Your task to perform on an android device: Show me productivity apps on the Play Store Image 0: 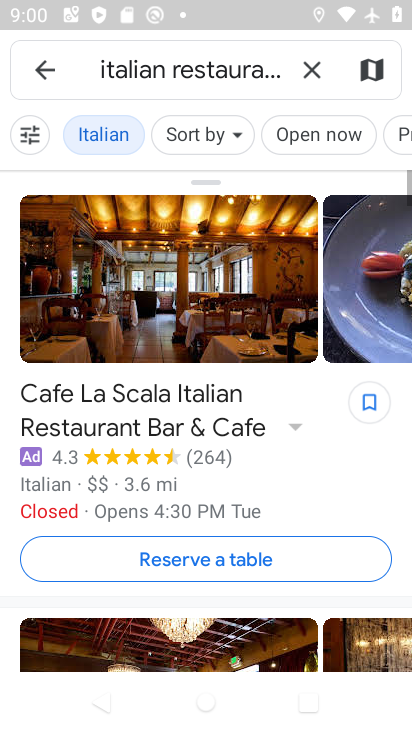
Step 0: press home button
Your task to perform on an android device: Show me productivity apps on the Play Store Image 1: 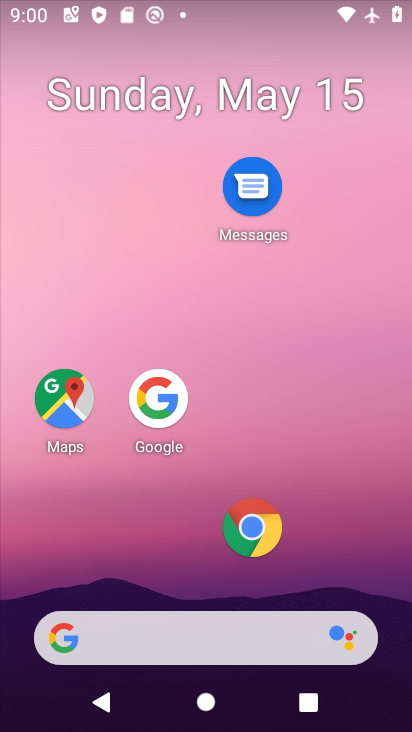
Step 1: drag from (293, 246) to (317, 180)
Your task to perform on an android device: Show me productivity apps on the Play Store Image 2: 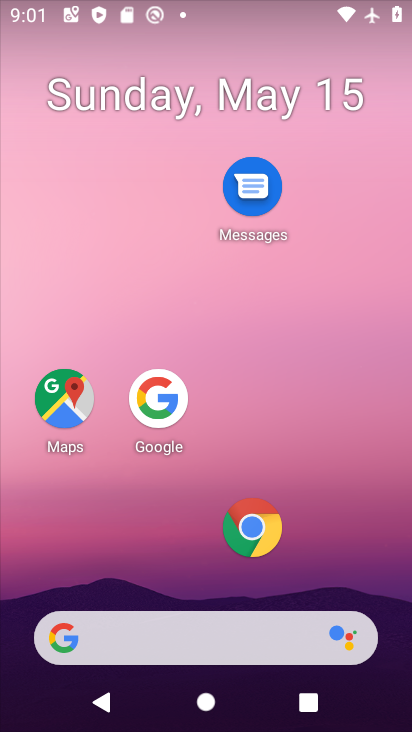
Step 2: drag from (180, 636) to (295, 204)
Your task to perform on an android device: Show me productivity apps on the Play Store Image 3: 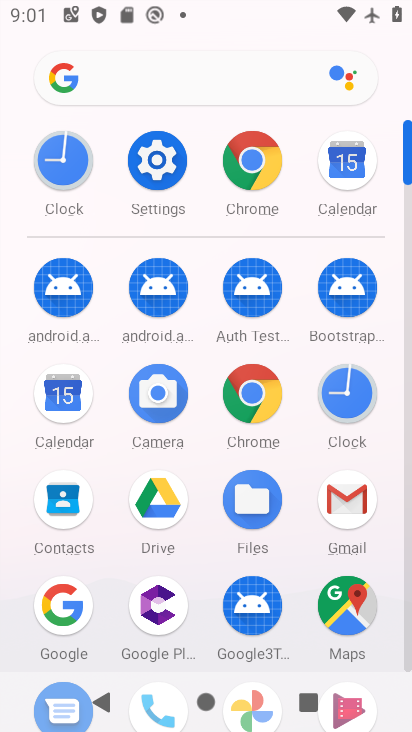
Step 3: drag from (158, 661) to (384, 159)
Your task to perform on an android device: Show me productivity apps on the Play Store Image 4: 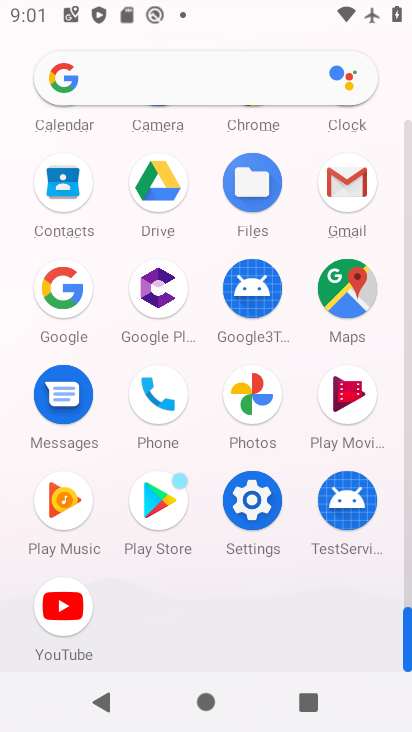
Step 4: click (159, 505)
Your task to perform on an android device: Show me productivity apps on the Play Store Image 5: 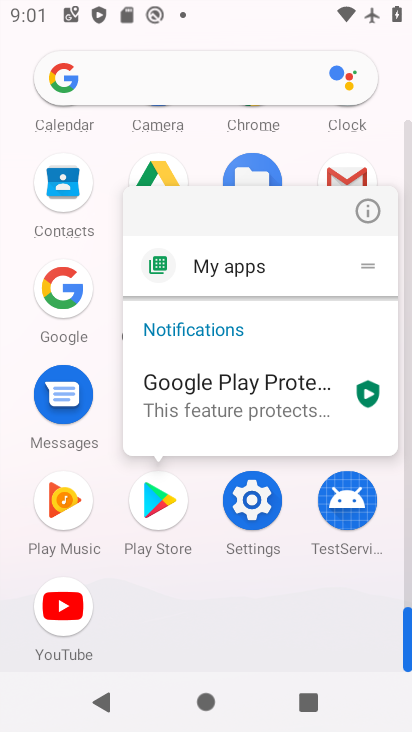
Step 5: click (159, 504)
Your task to perform on an android device: Show me productivity apps on the Play Store Image 6: 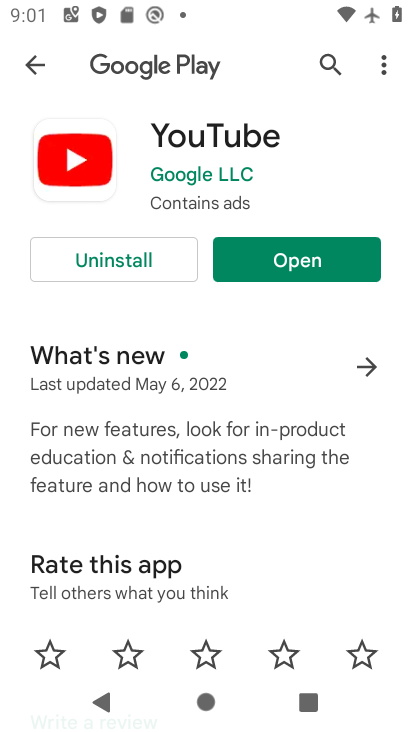
Step 6: click (26, 65)
Your task to perform on an android device: Show me productivity apps on the Play Store Image 7: 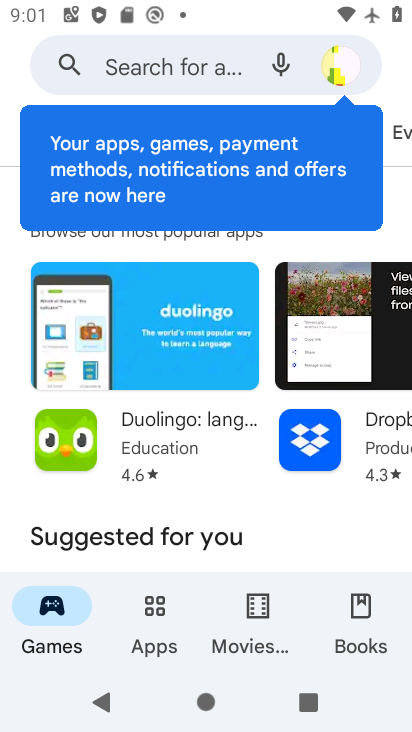
Step 7: click (163, 613)
Your task to perform on an android device: Show me productivity apps on the Play Store Image 8: 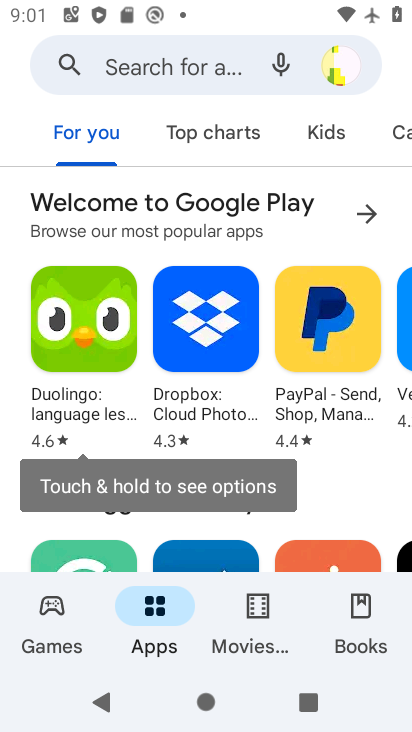
Step 8: drag from (374, 128) to (62, 154)
Your task to perform on an android device: Show me productivity apps on the Play Store Image 9: 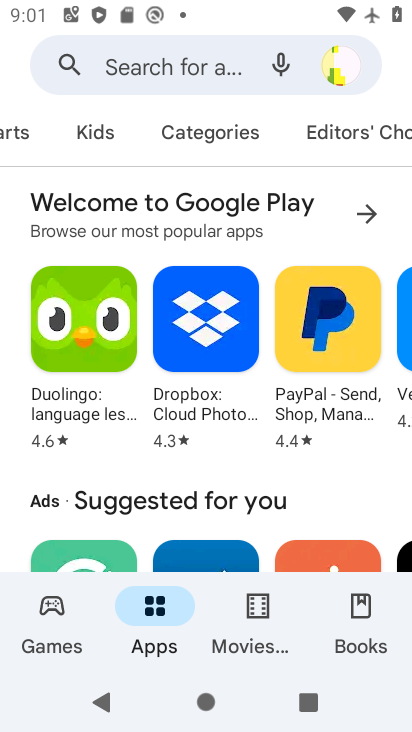
Step 9: click (195, 136)
Your task to perform on an android device: Show me productivity apps on the Play Store Image 10: 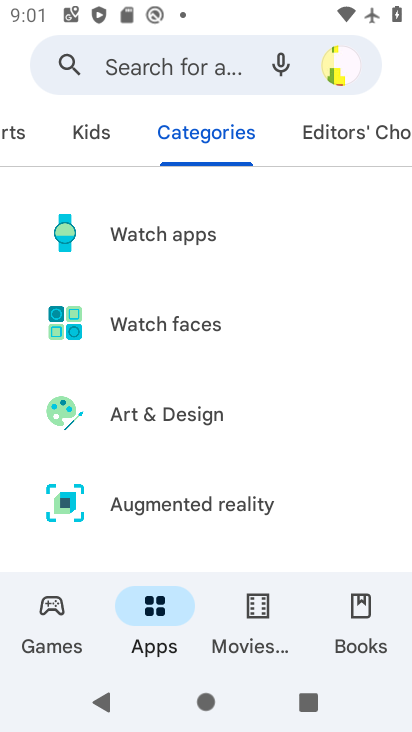
Step 10: drag from (297, 531) to (387, 156)
Your task to perform on an android device: Show me productivity apps on the Play Store Image 11: 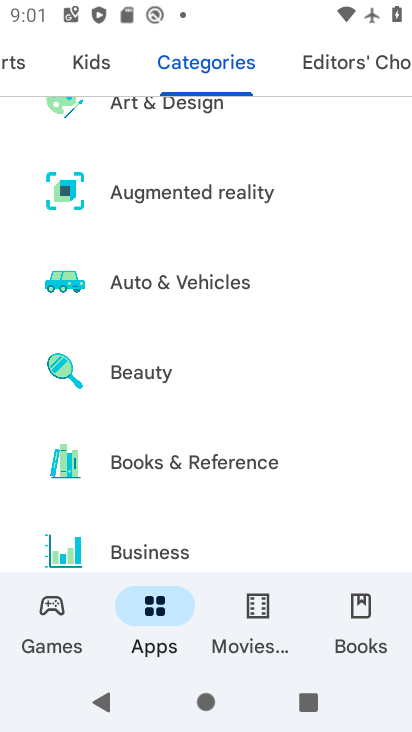
Step 11: drag from (253, 527) to (374, 75)
Your task to perform on an android device: Show me productivity apps on the Play Store Image 12: 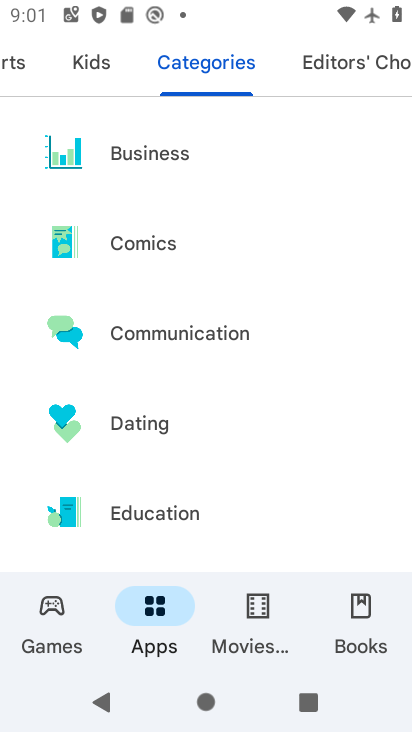
Step 12: drag from (294, 445) to (345, 159)
Your task to perform on an android device: Show me productivity apps on the Play Store Image 13: 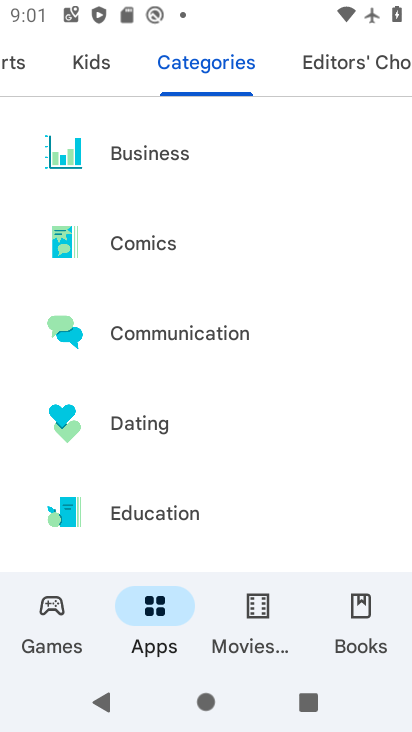
Step 13: drag from (224, 525) to (346, 7)
Your task to perform on an android device: Show me productivity apps on the Play Store Image 14: 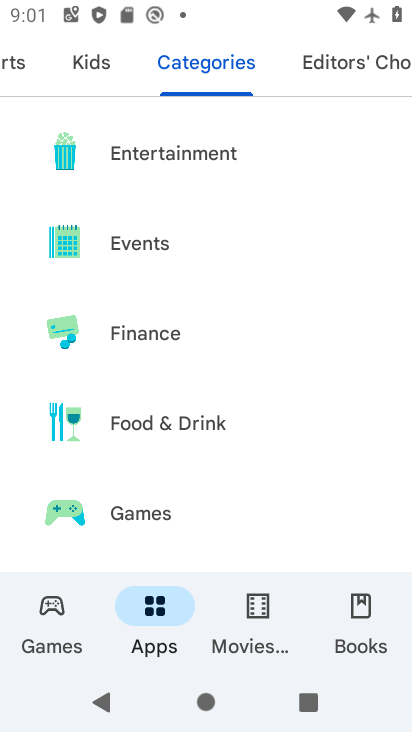
Step 14: drag from (202, 496) to (370, 0)
Your task to perform on an android device: Show me productivity apps on the Play Store Image 15: 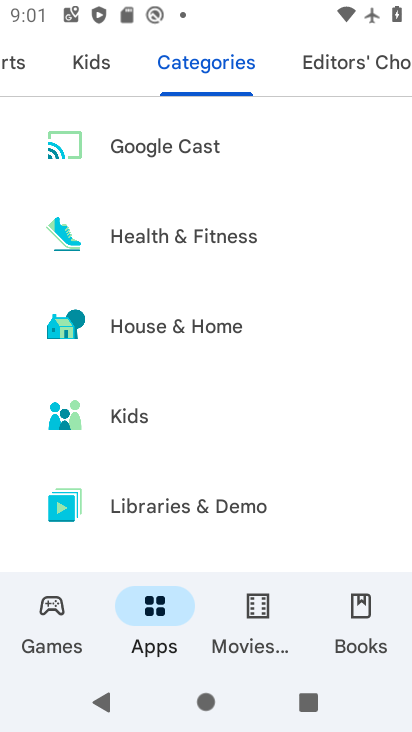
Step 15: drag from (217, 470) to (362, 65)
Your task to perform on an android device: Show me productivity apps on the Play Store Image 16: 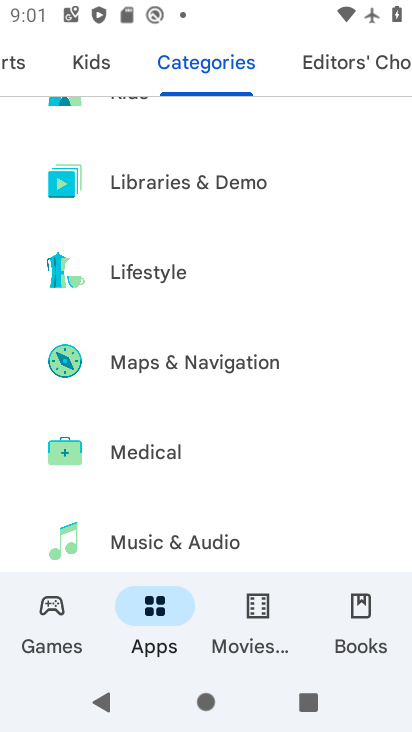
Step 16: drag from (260, 490) to (369, 125)
Your task to perform on an android device: Show me productivity apps on the Play Store Image 17: 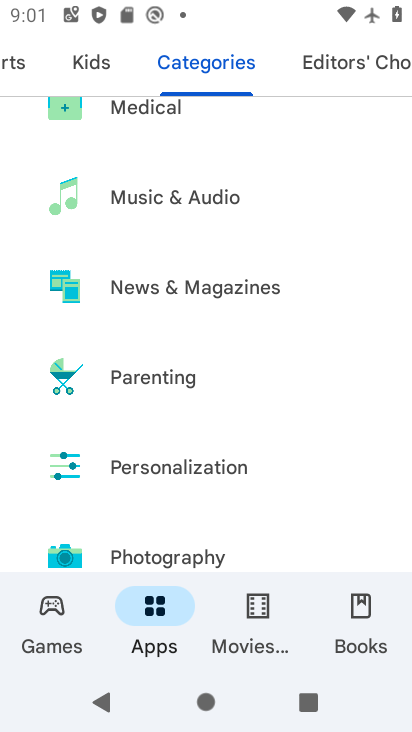
Step 17: drag from (249, 536) to (348, 93)
Your task to perform on an android device: Show me productivity apps on the Play Store Image 18: 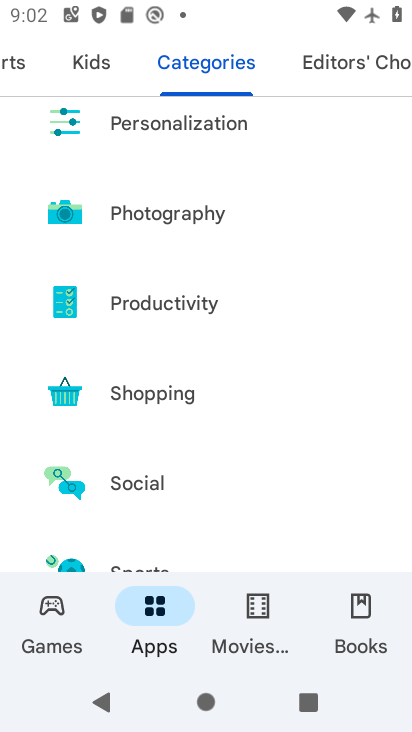
Step 18: click (178, 297)
Your task to perform on an android device: Show me productivity apps on the Play Store Image 19: 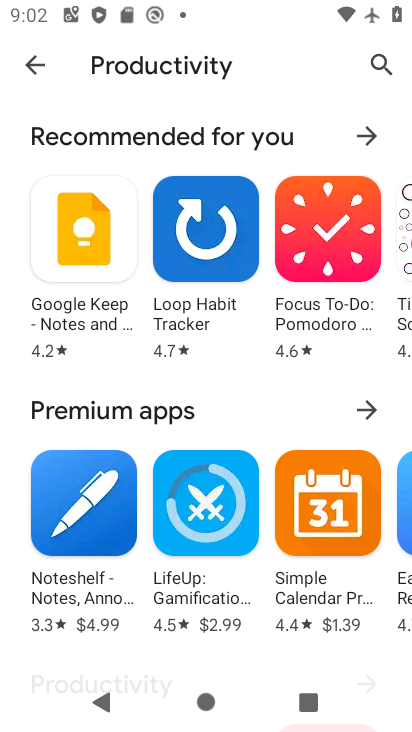
Step 19: task complete